Your task to perform on an android device: Show me popular videos on Youtube Image 0: 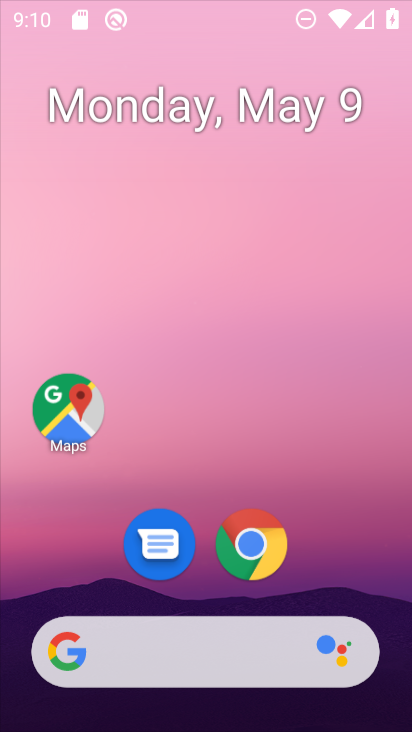
Step 0: click (172, 74)
Your task to perform on an android device: Show me popular videos on Youtube Image 1: 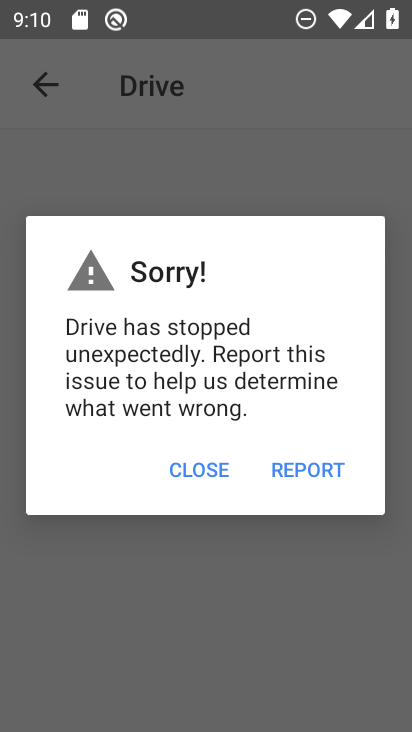
Step 1: press home button
Your task to perform on an android device: Show me popular videos on Youtube Image 2: 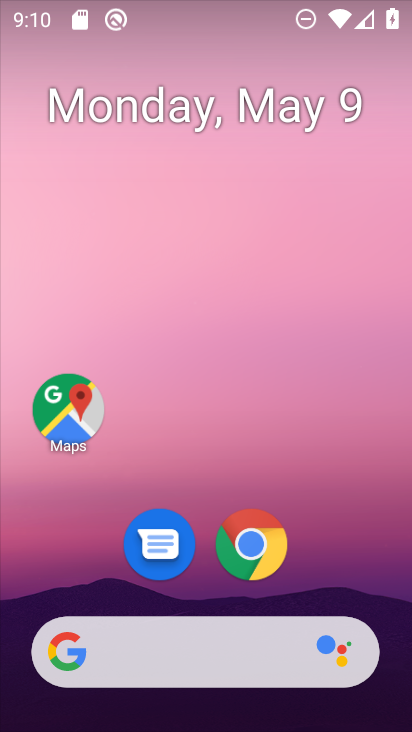
Step 2: drag from (322, 574) to (249, 51)
Your task to perform on an android device: Show me popular videos on Youtube Image 3: 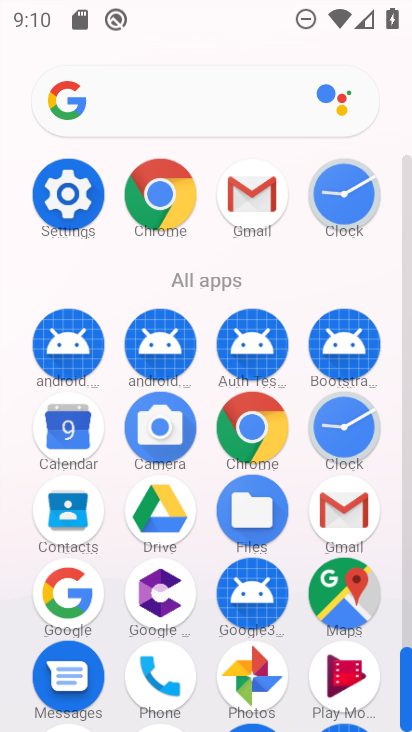
Step 3: drag from (205, 696) to (155, 295)
Your task to perform on an android device: Show me popular videos on Youtube Image 4: 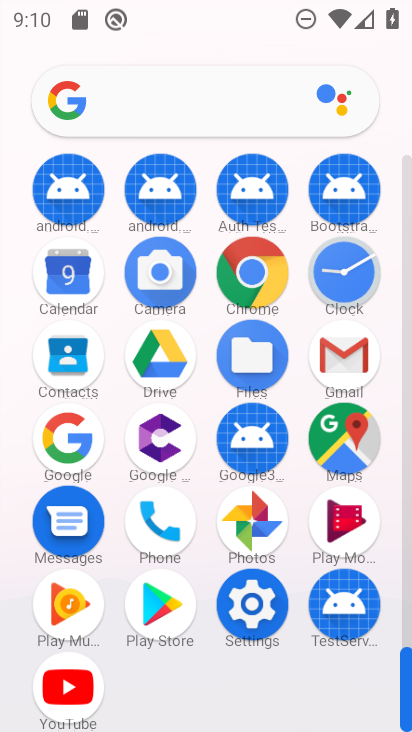
Step 4: click (76, 691)
Your task to perform on an android device: Show me popular videos on Youtube Image 5: 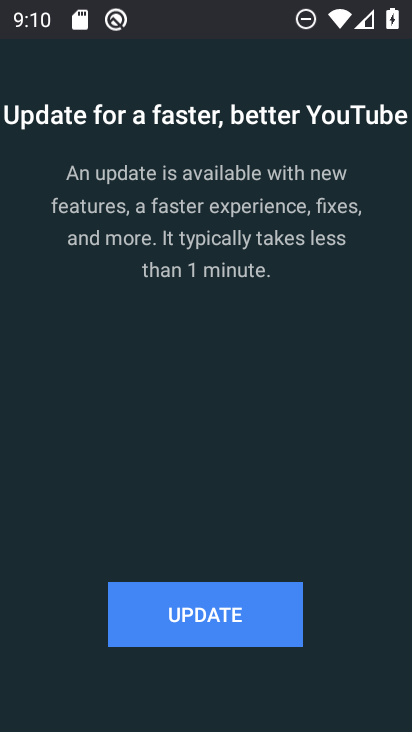
Step 5: click (217, 617)
Your task to perform on an android device: Show me popular videos on Youtube Image 6: 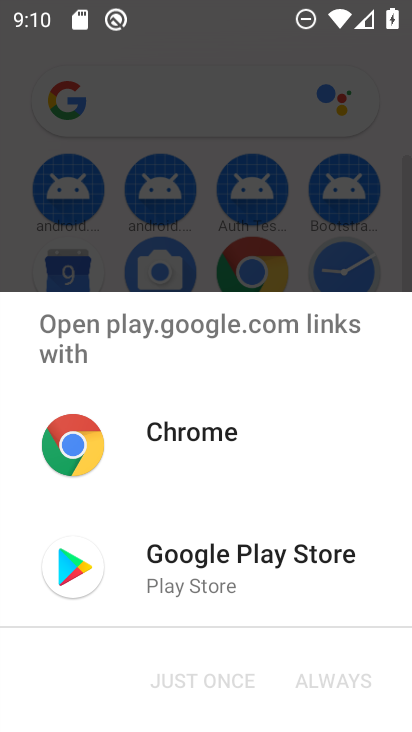
Step 6: click (198, 571)
Your task to perform on an android device: Show me popular videos on Youtube Image 7: 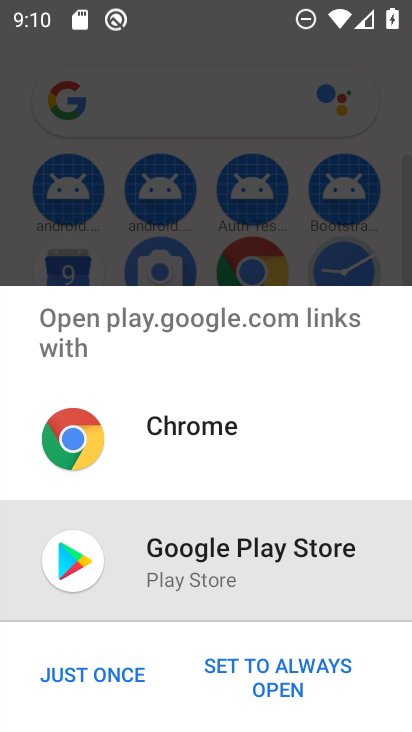
Step 7: click (63, 677)
Your task to perform on an android device: Show me popular videos on Youtube Image 8: 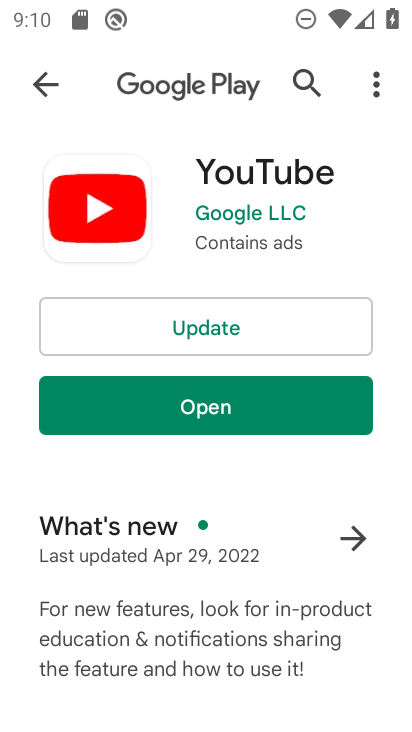
Step 8: click (155, 326)
Your task to perform on an android device: Show me popular videos on Youtube Image 9: 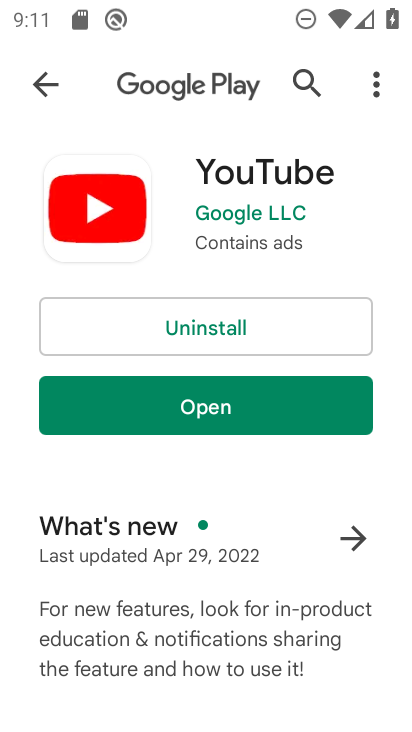
Step 9: click (199, 395)
Your task to perform on an android device: Show me popular videos on Youtube Image 10: 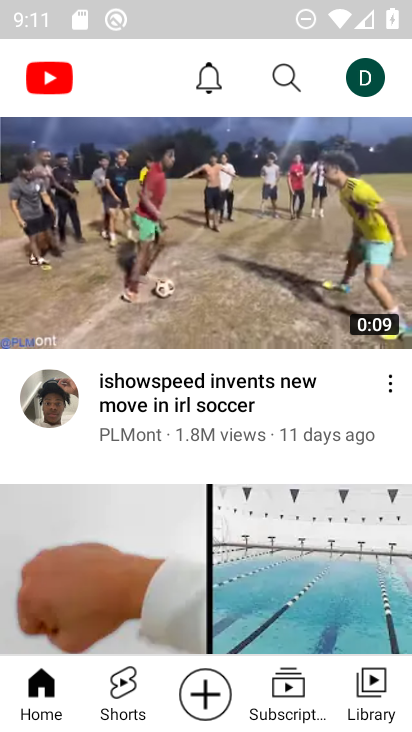
Step 10: click (129, 686)
Your task to perform on an android device: Show me popular videos on Youtube Image 11: 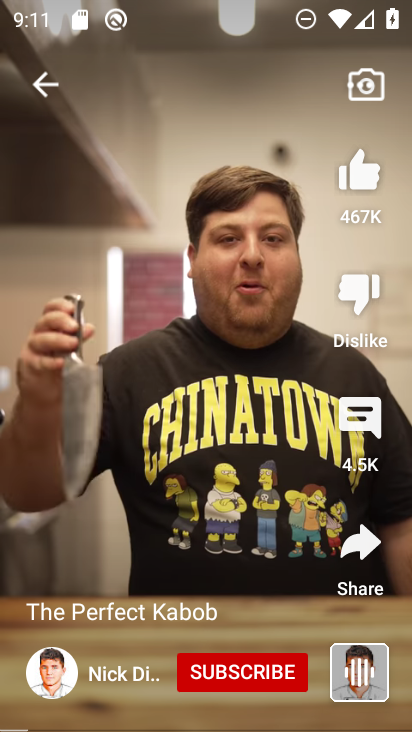
Step 11: task complete